Your task to perform on an android device: Open battery settings Image 0: 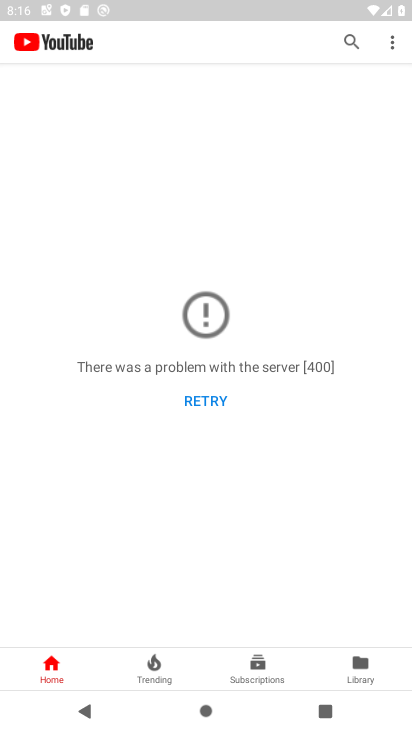
Step 0: press home button
Your task to perform on an android device: Open battery settings Image 1: 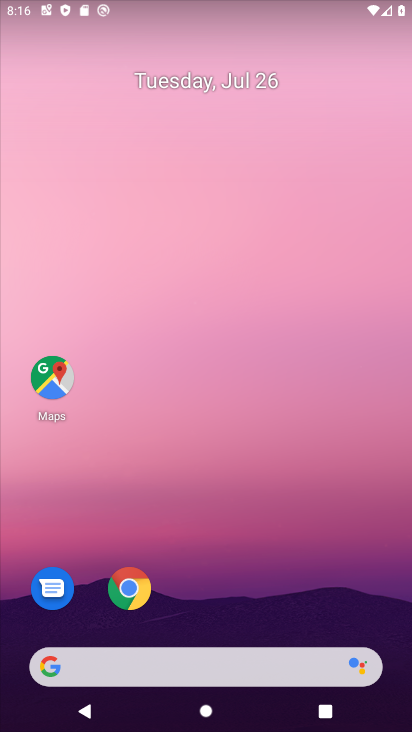
Step 1: drag from (220, 636) to (218, 35)
Your task to perform on an android device: Open battery settings Image 2: 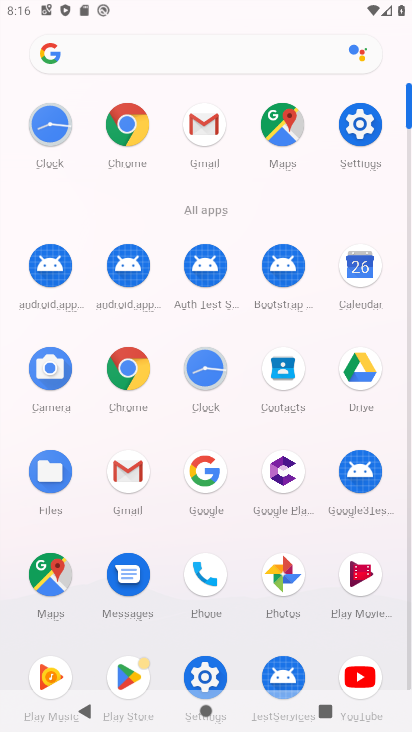
Step 2: click (361, 123)
Your task to perform on an android device: Open battery settings Image 3: 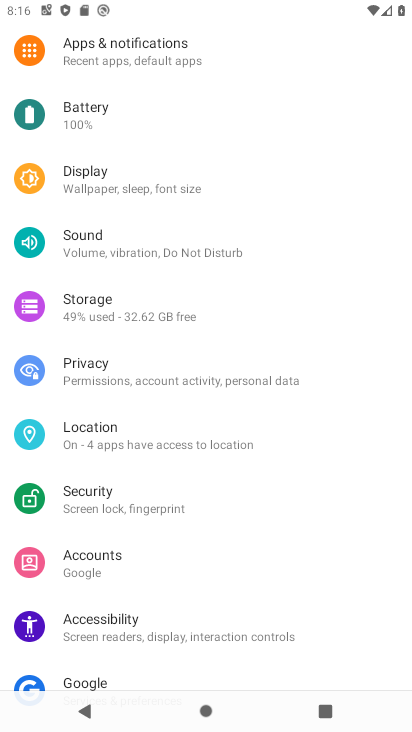
Step 3: click (80, 121)
Your task to perform on an android device: Open battery settings Image 4: 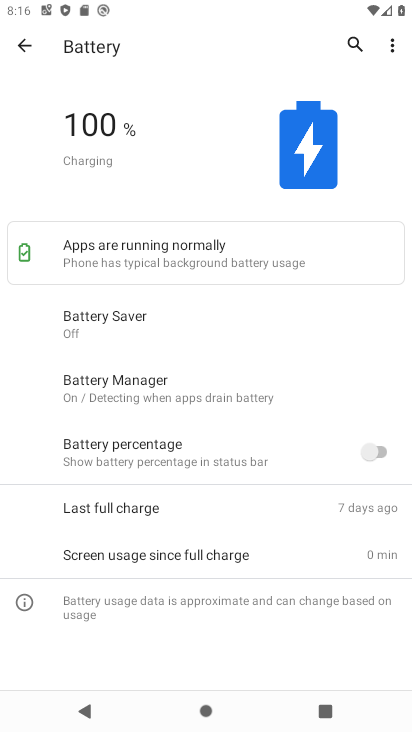
Step 4: task complete